Your task to perform on an android device: What is the news today? Image 0: 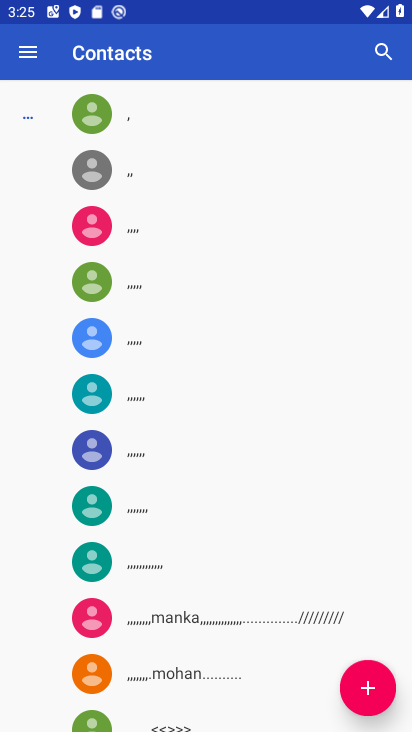
Step 0: press home button
Your task to perform on an android device: What is the news today? Image 1: 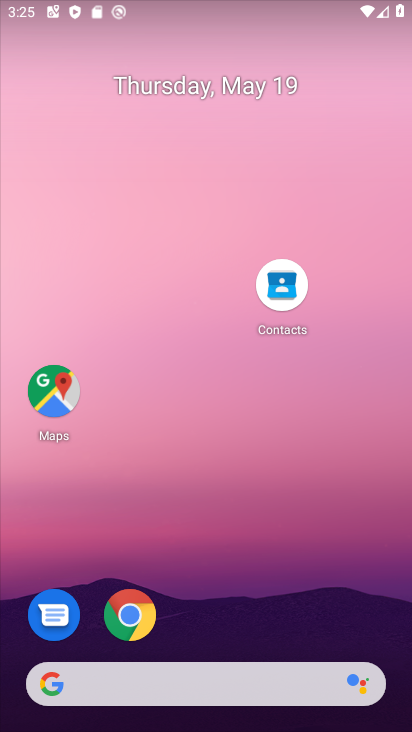
Step 1: drag from (234, 707) to (223, 108)
Your task to perform on an android device: What is the news today? Image 2: 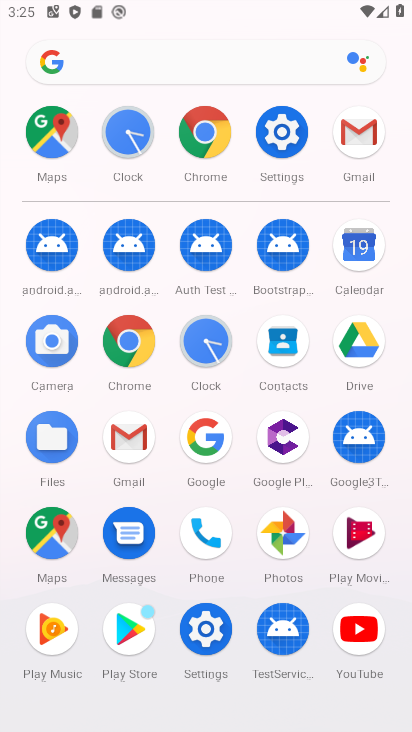
Step 2: click (208, 457)
Your task to perform on an android device: What is the news today? Image 3: 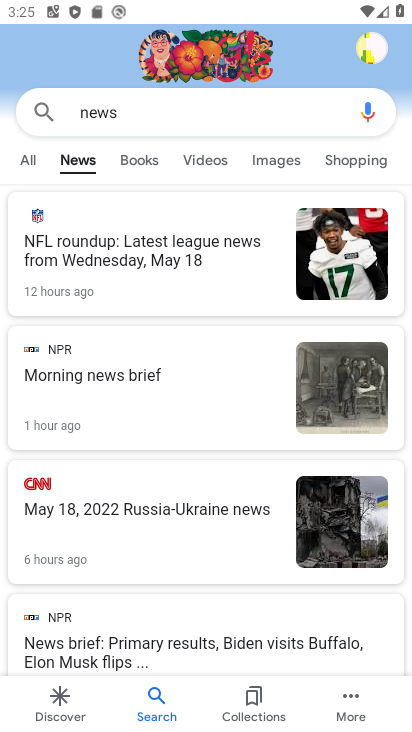
Step 3: task complete